Your task to perform on an android device: Open Youtube and go to the subscriptions tab Image 0: 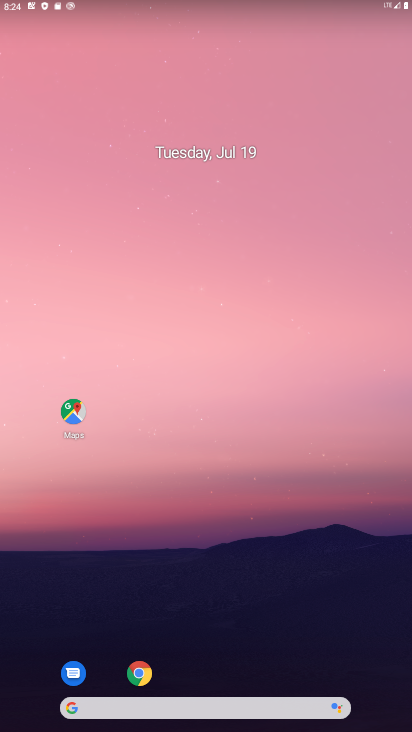
Step 0: drag from (375, 652) to (237, 0)
Your task to perform on an android device: Open Youtube and go to the subscriptions tab Image 1: 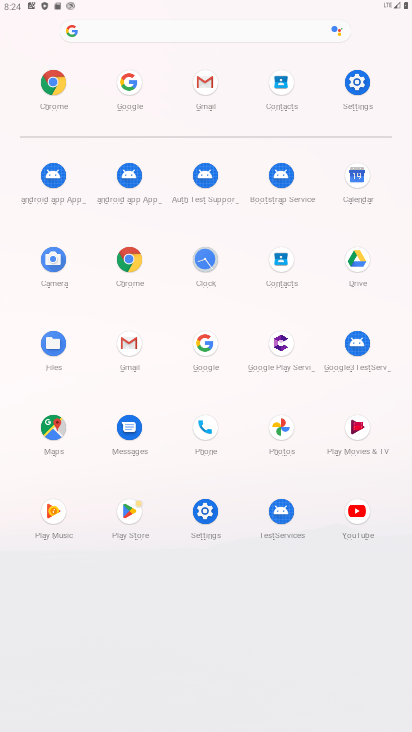
Step 1: click (358, 517)
Your task to perform on an android device: Open Youtube and go to the subscriptions tab Image 2: 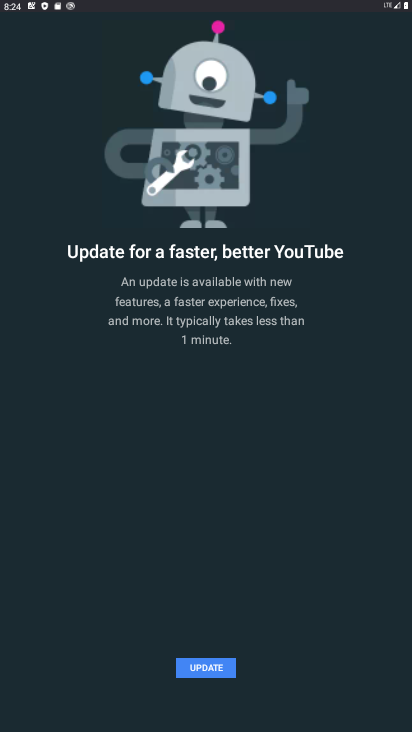
Step 2: click (203, 671)
Your task to perform on an android device: Open Youtube and go to the subscriptions tab Image 3: 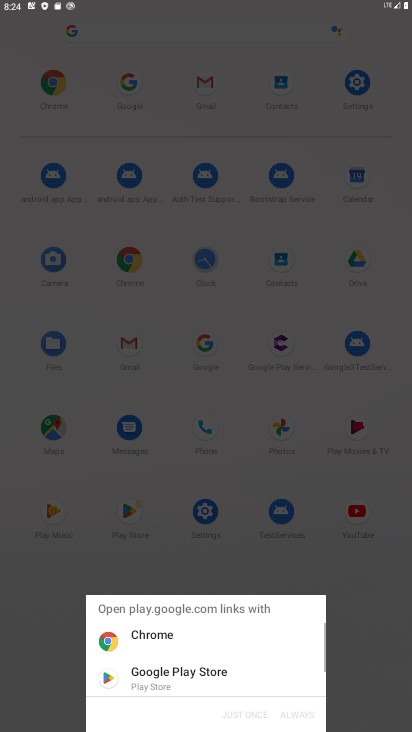
Step 3: click (187, 671)
Your task to perform on an android device: Open Youtube and go to the subscriptions tab Image 4: 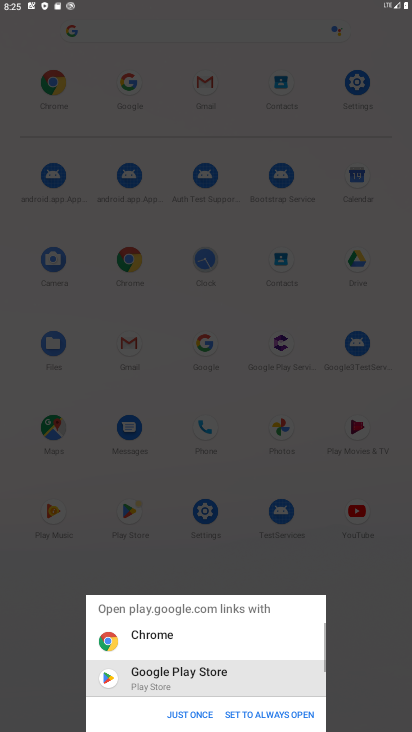
Step 4: click (193, 709)
Your task to perform on an android device: Open Youtube and go to the subscriptions tab Image 5: 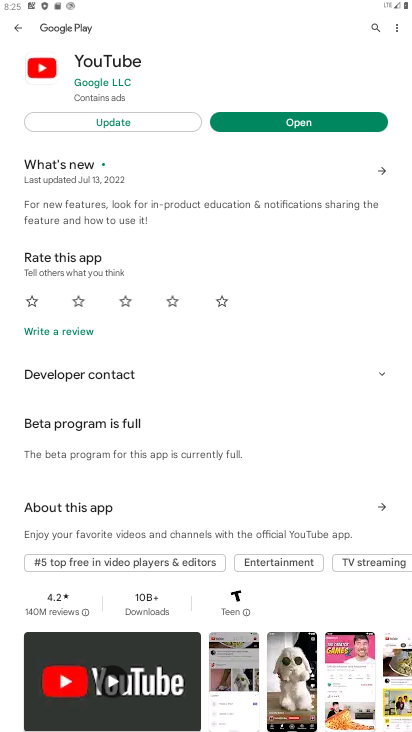
Step 5: click (90, 122)
Your task to perform on an android device: Open Youtube and go to the subscriptions tab Image 6: 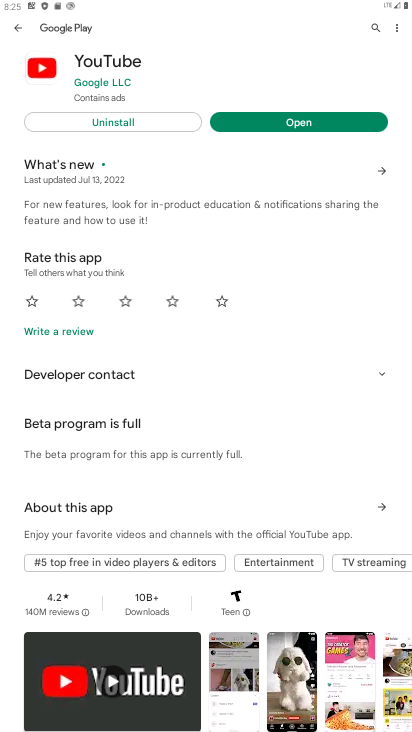
Step 6: click (275, 119)
Your task to perform on an android device: Open Youtube and go to the subscriptions tab Image 7: 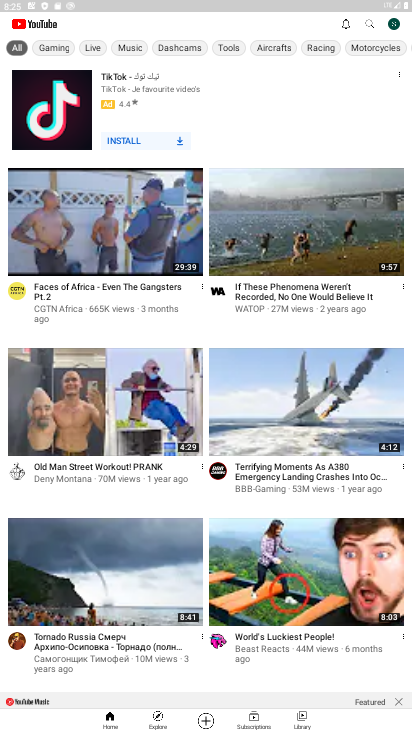
Step 7: click (254, 722)
Your task to perform on an android device: Open Youtube and go to the subscriptions tab Image 8: 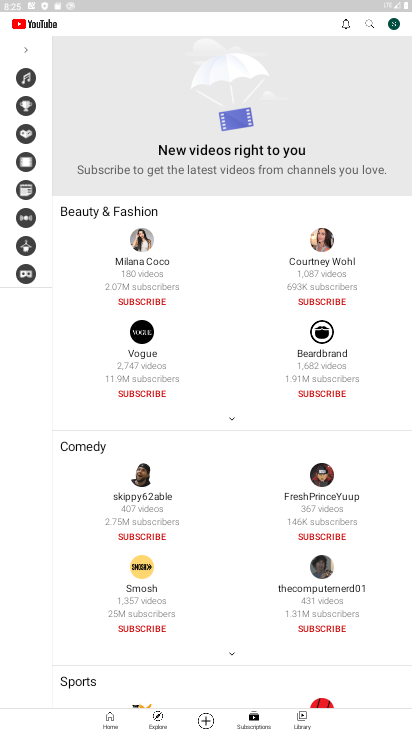
Step 8: task complete